Your task to perform on an android device: toggle notifications settings in the gmail app Image 0: 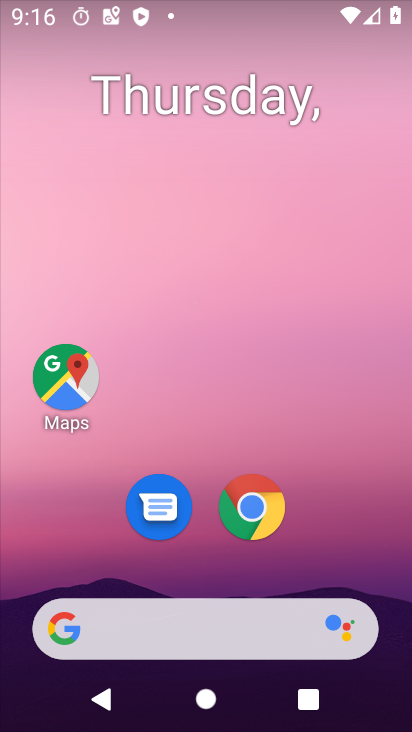
Step 0: drag from (200, 565) to (214, 6)
Your task to perform on an android device: toggle notifications settings in the gmail app Image 1: 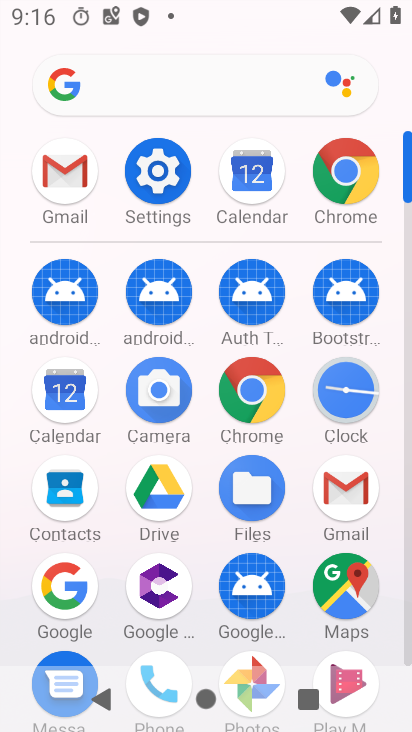
Step 1: click (344, 485)
Your task to perform on an android device: toggle notifications settings in the gmail app Image 2: 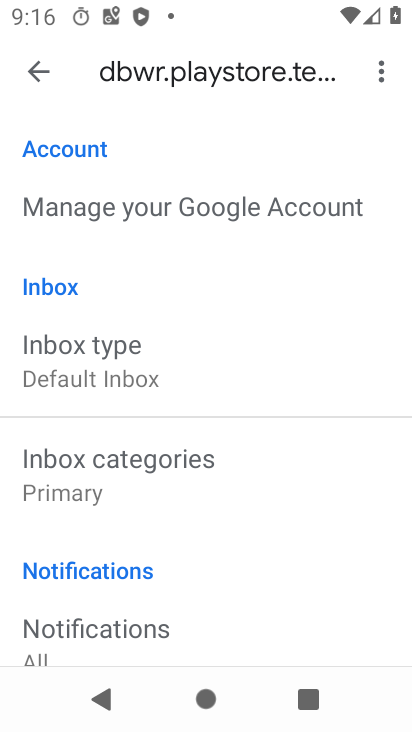
Step 2: click (40, 78)
Your task to perform on an android device: toggle notifications settings in the gmail app Image 3: 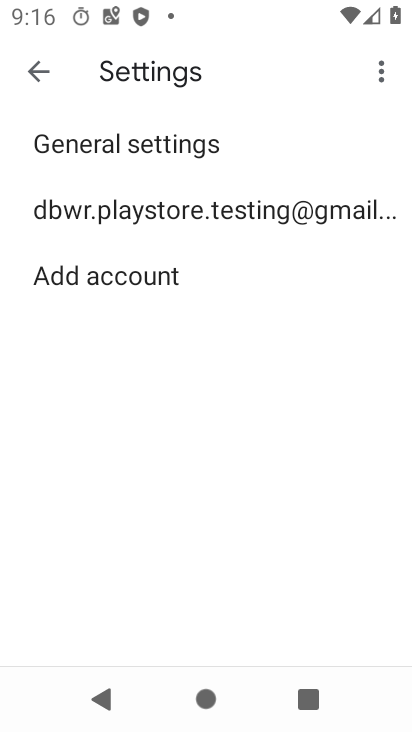
Step 3: click (130, 154)
Your task to perform on an android device: toggle notifications settings in the gmail app Image 4: 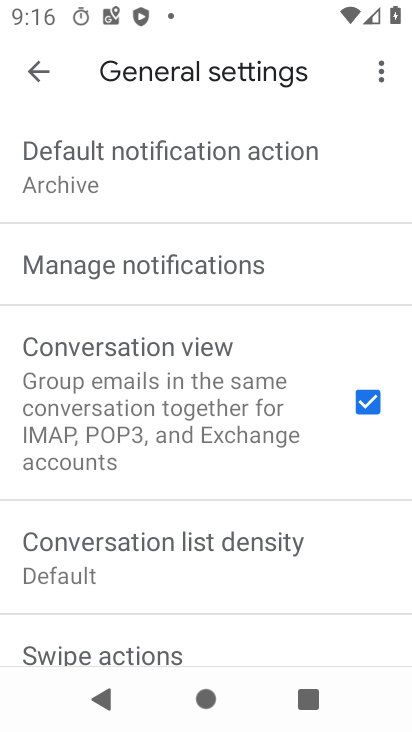
Step 4: click (130, 272)
Your task to perform on an android device: toggle notifications settings in the gmail app Image 5: 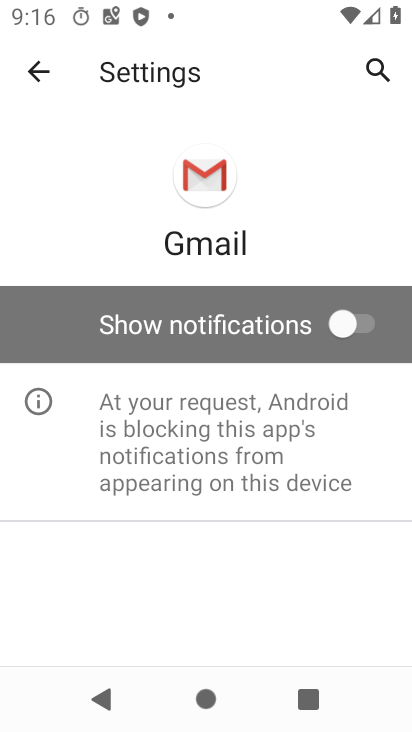
Step 5: click (375, 328)
Your task to perform on an android device: toggle notifications settings in the gmail app Image 6: 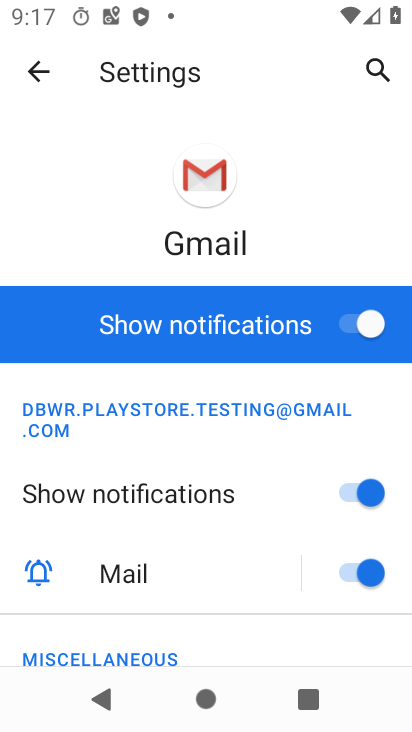
Step 6: task complete